Your task to perform on an android device: Open privacy settings Image 0: 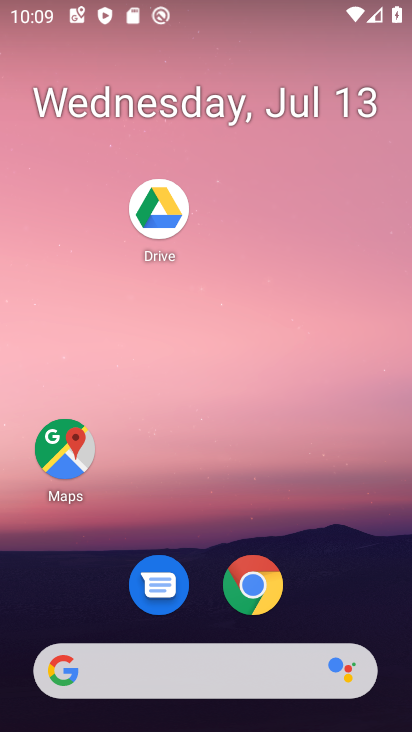
Step 0: press home button
Your task to perform on an android device: Open privacy settings Image 1: 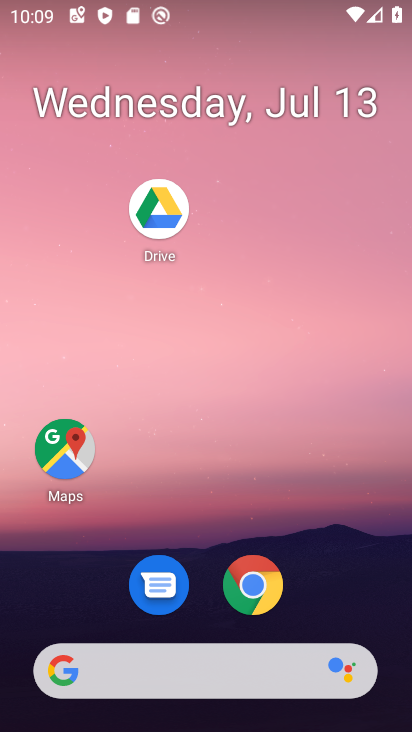
Step 1: drag from (156, 671) to (266, 46)
Your task to perform on an android device: Open privacy settings Image 2: 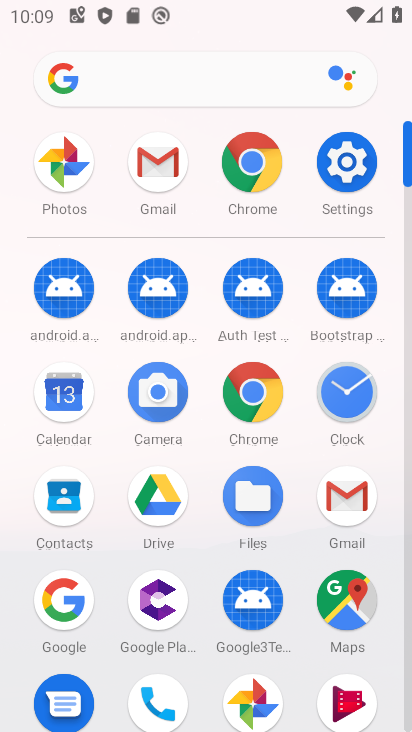
Step 2: click (346, 170)
Your task to perform on an android device: Open privacy settings Image 3: 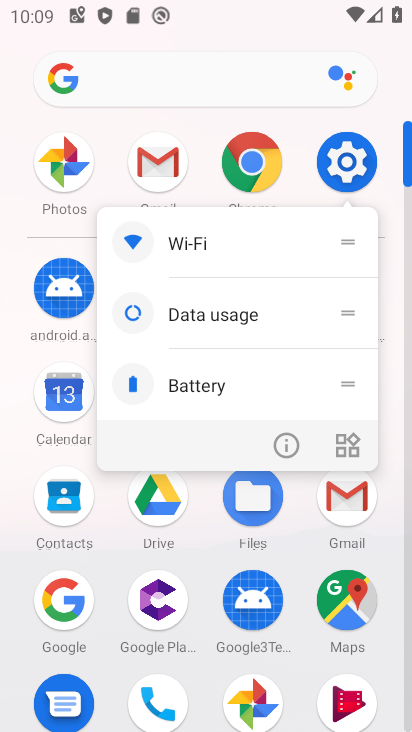
Step 3: click (347, 162)
Your task to perform on an android device: Open privacy settings Image 4: 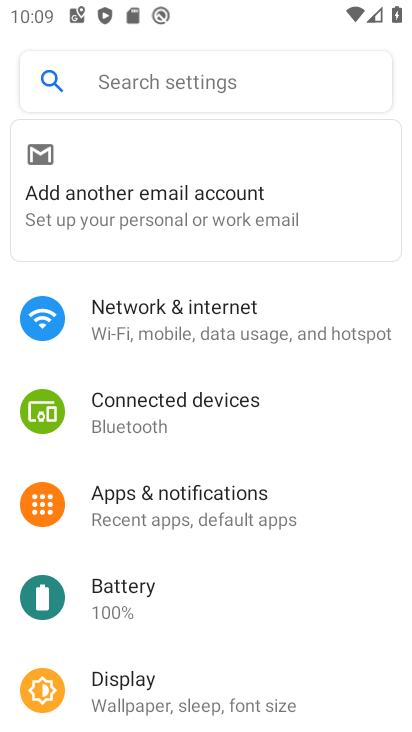
Step 4: drag from (210, 576) to (328, 198)
Your task to perform on an android device: Open privacy settings Image 5: 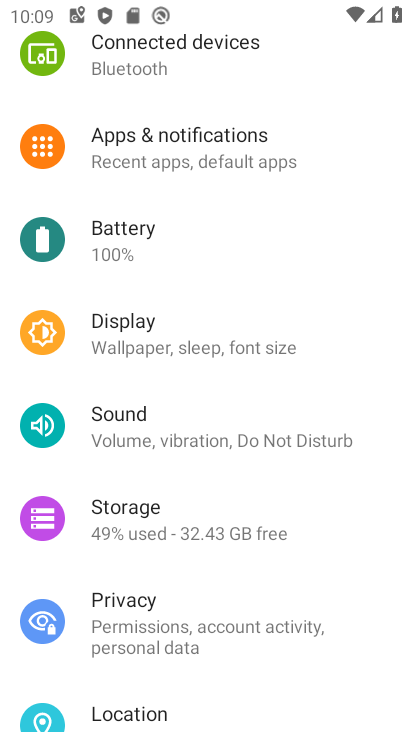
Step 5: click (142, 628)
Your task to perform on an android device: Open privacy settings Image 6: 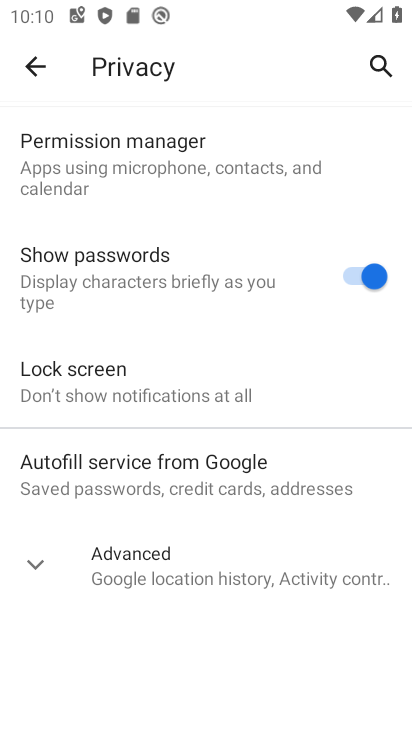
Step 6: task complete